Your task to perform on an android device: Open CNN.com Image 0: 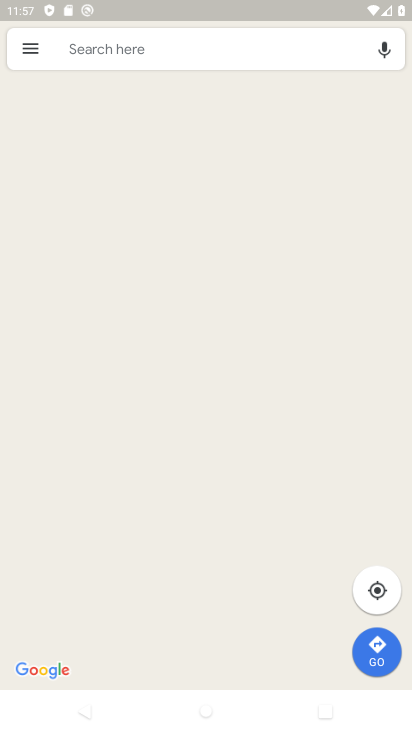
Step 0: press home button
Your task to perform on an android device: Open CNN.com Image 1: 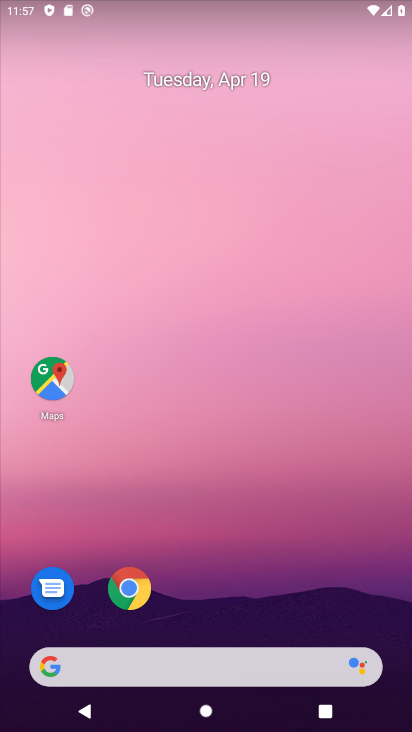
Step 1: click (130, 602)
Your task to perform on an android device: Open CNN.com Image 2: 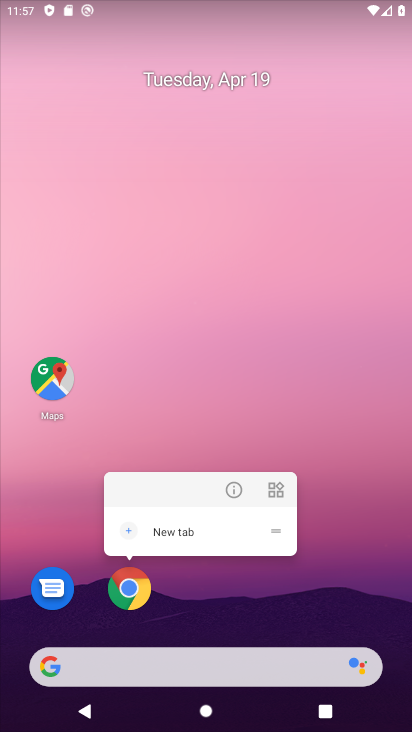
Step 2: click (128, 587)
Your task to perform on an android device: Open CNN.com Image 3: 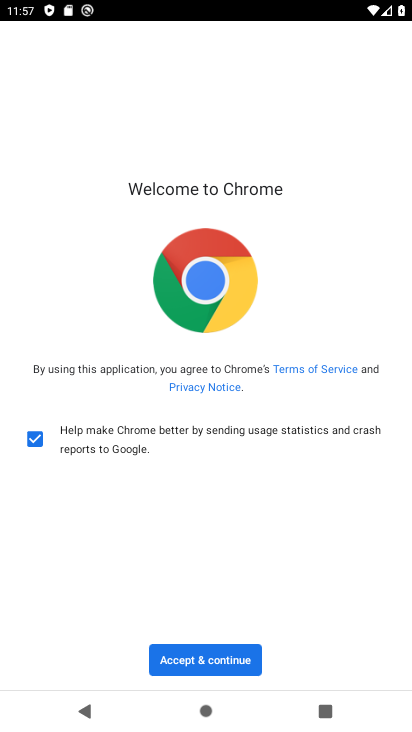
Step 3: click (167, 654)
Your task to perform on an android device: Open CNN.com Image 4: 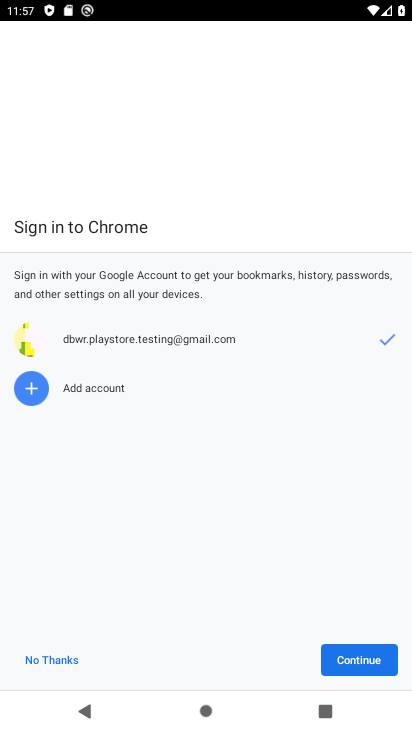
Step 4: click (347, 647)
Your task to perform on an android device: Open CNN.com Image 5: 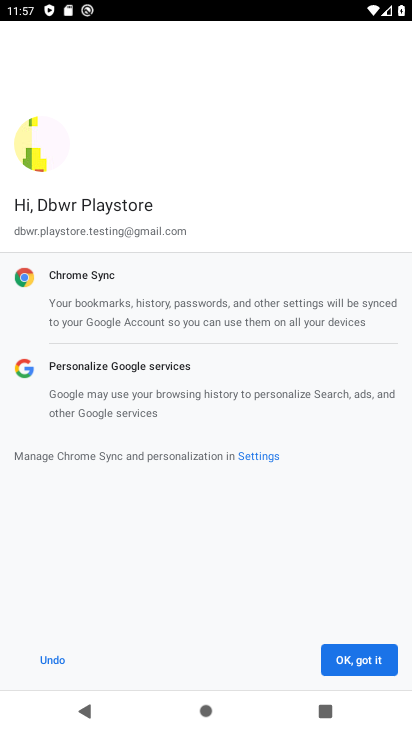
Step 5: click (353, 656)
Your task to perform on an android device: Open CNN.com Image 6: 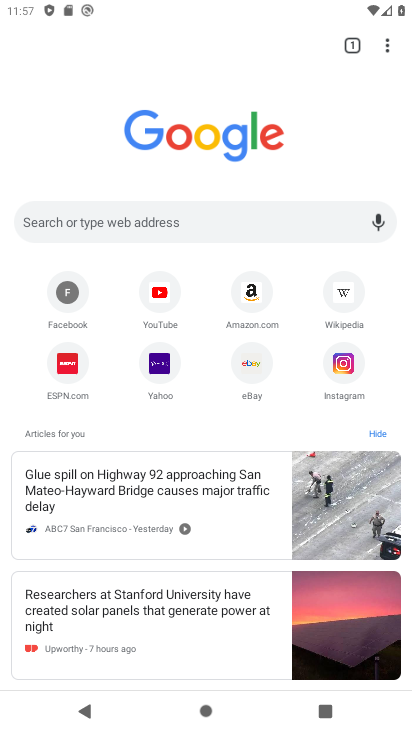
Step 6: click (232, 228)
Your task to perform on an android device: Open CNN.com Image 7: 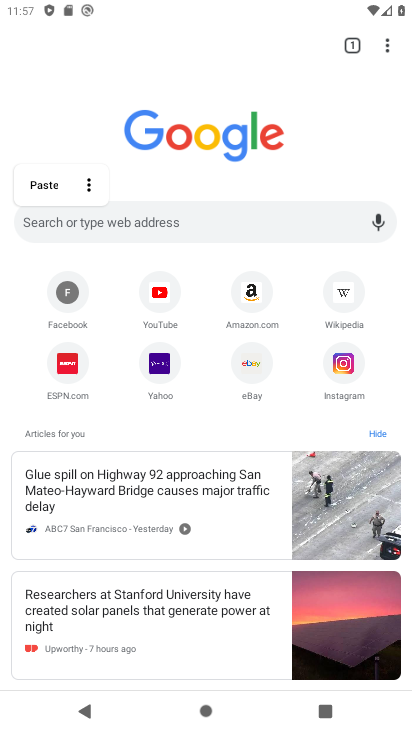
Step 7: type "cnn.com"
Your task to perform on an android device: Open CNN.com Image 8: 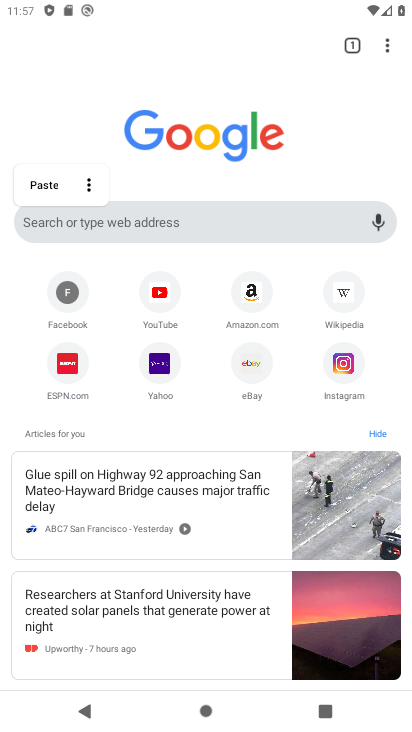
Step 8: click (156, 220)
Your task to perform on an android device: Open CNN.com Image 9: 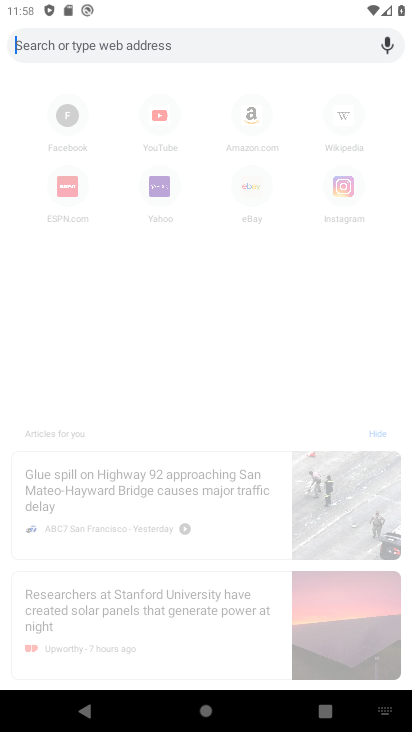
Step 9: type "cnn.com"
Your task to perform on an android device: Open CNN.com Image 10: 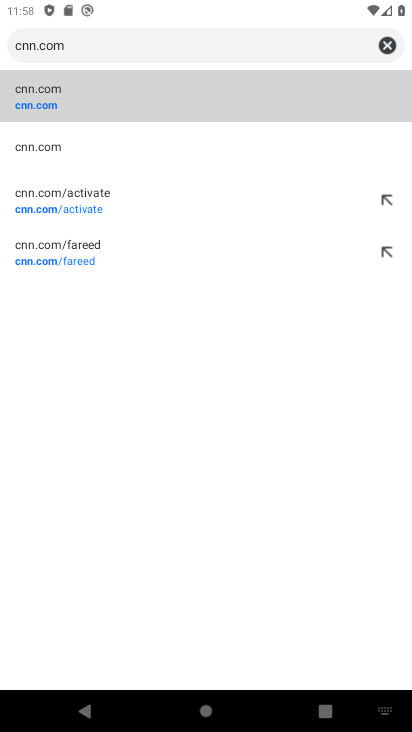
Step 10: click (291, 83)
Your task to perform on an android device: Open CNN.com Image 11: 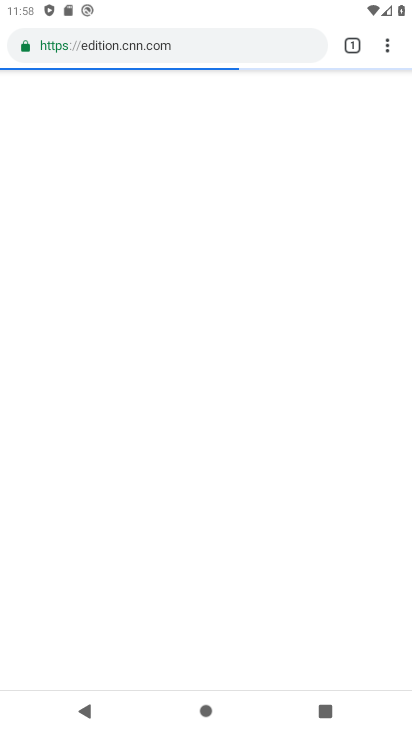
Step 11: task complete